Your task to perform on an android device: check google app version Image 0: 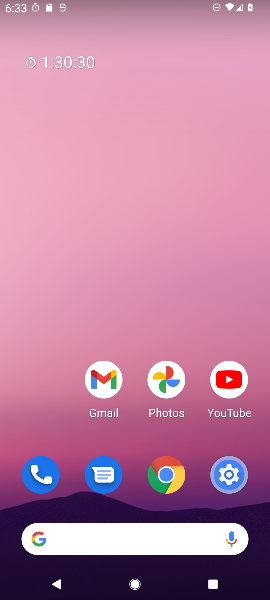
Step 0: press home button
Your task to perform on an android device: check google app version Image 1: 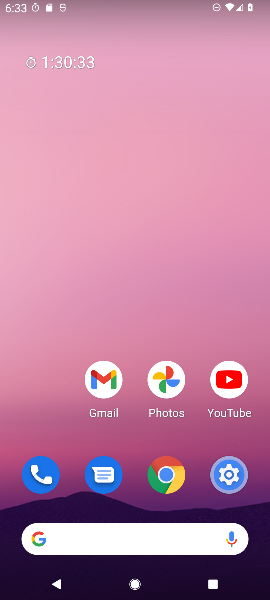
Step 1: drag from (61, 429) to (54, 191)
Your task to perform on an android device: check google app version Image 2: 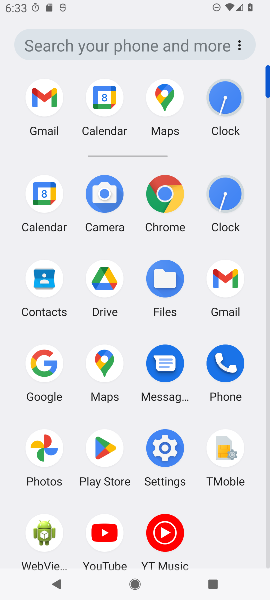
Step 2: click (46, 361)
Your task to perform on an android device: check google app version Image 3: 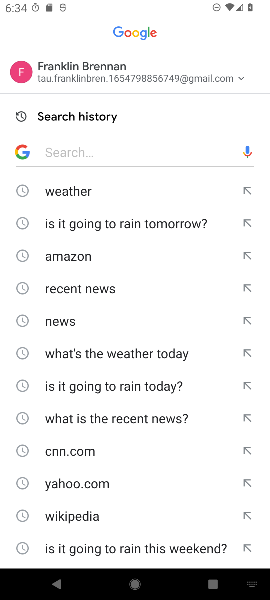
Step 3: press back button
Your task to perform on an android device: check google app version Image 4: 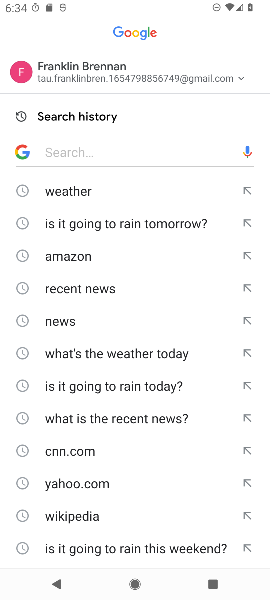
Step 4: press back button
Your task to perform on an android device: check google app version Image 5: 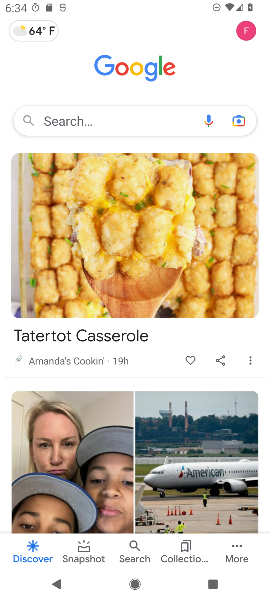
Step 5: click (226, 558)
Your task to perform on an android device: check google app version Image 6: 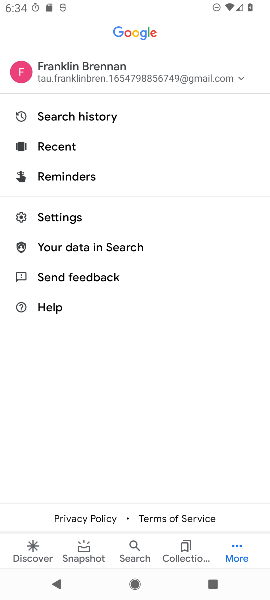
Step 6: click (75, 213)
Your task to perform on an android device: check google app version Image 7: 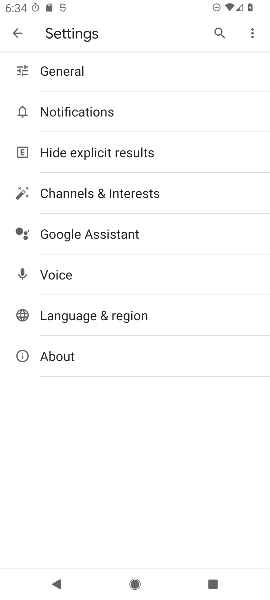
Step 7: click (102, 353)
Your task to perform on an android device: check google app version Image 8: 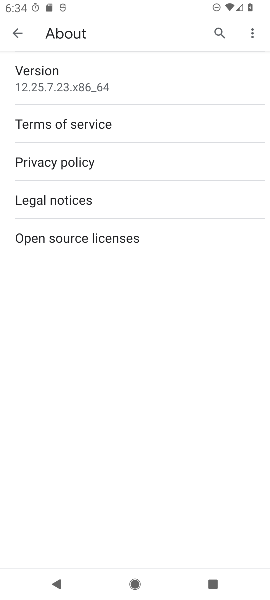
Step 8: task complete